Your task to perform on an android device: Is it going to rain tomorrow? Image 0: 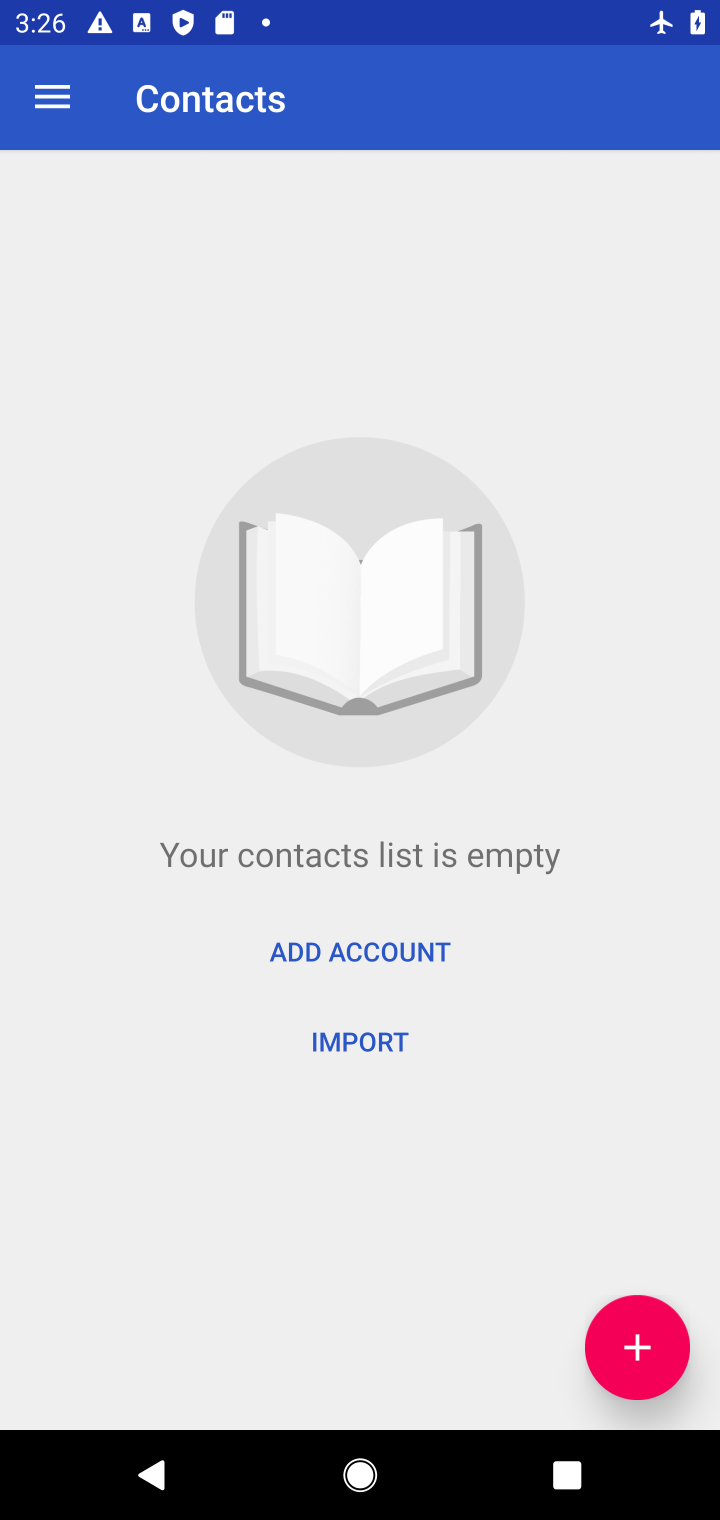
Step 0: press home button
Your task to perform on an android device: Is it going to rain tomorrow? Image 1: 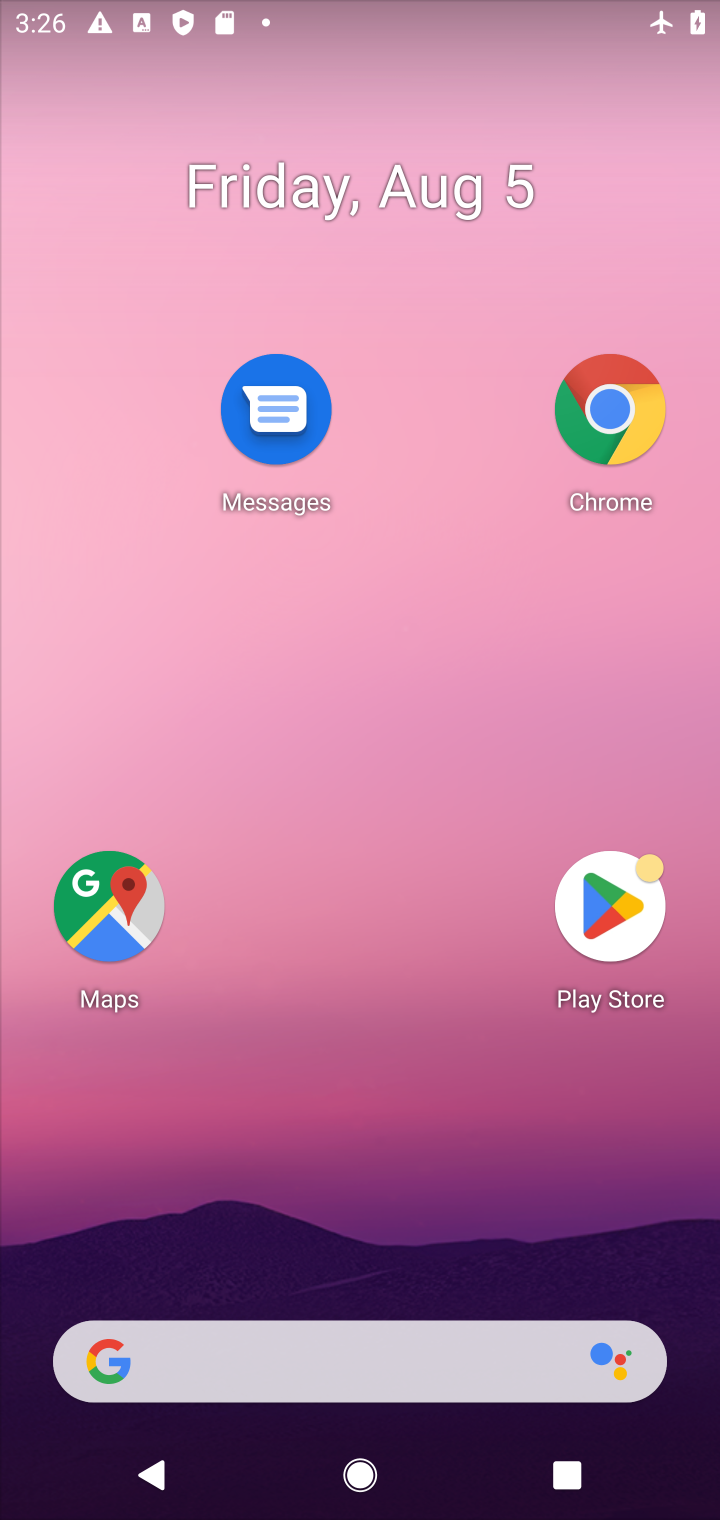
Step 1: drag from (328, 1041) to (378, 329)
Your task to perform on an android device: Is it going to rain tomorrow? Image 2: 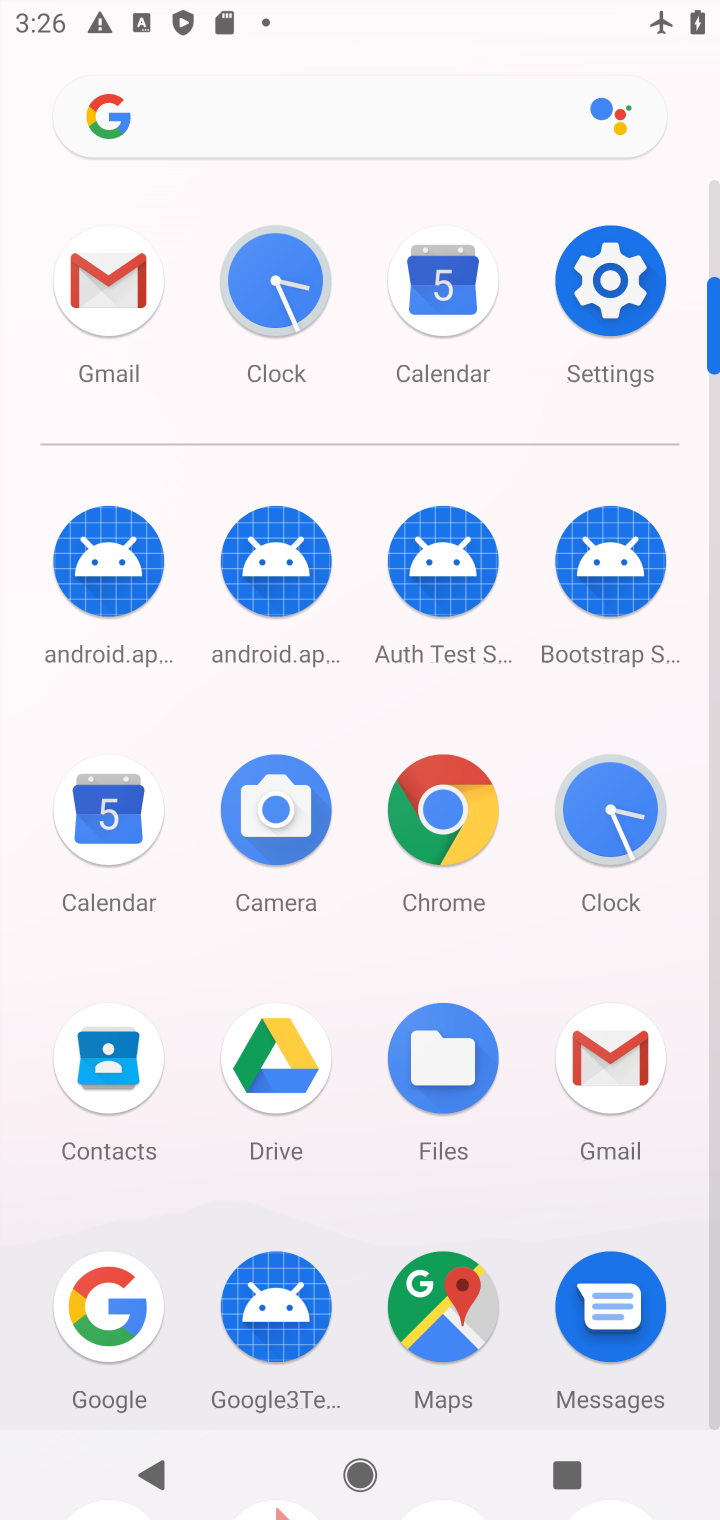
Step 2: click (101, 1289)
Your task to perform on an android device: Is it going to rain tomorrow? Image 3: 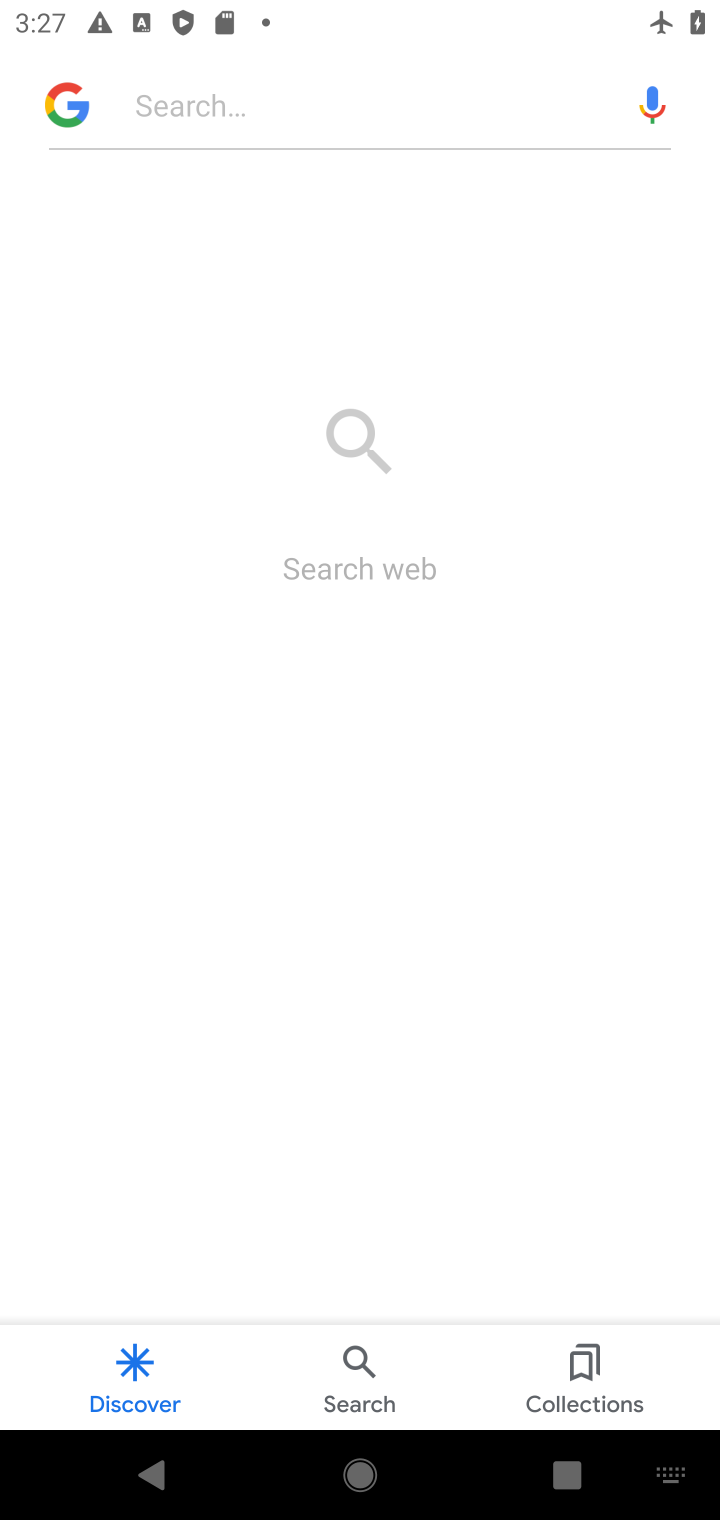
Step 3: click (224, 107)
Your task to perform on an android device: Is it going to rain tomorrow? Image 4: 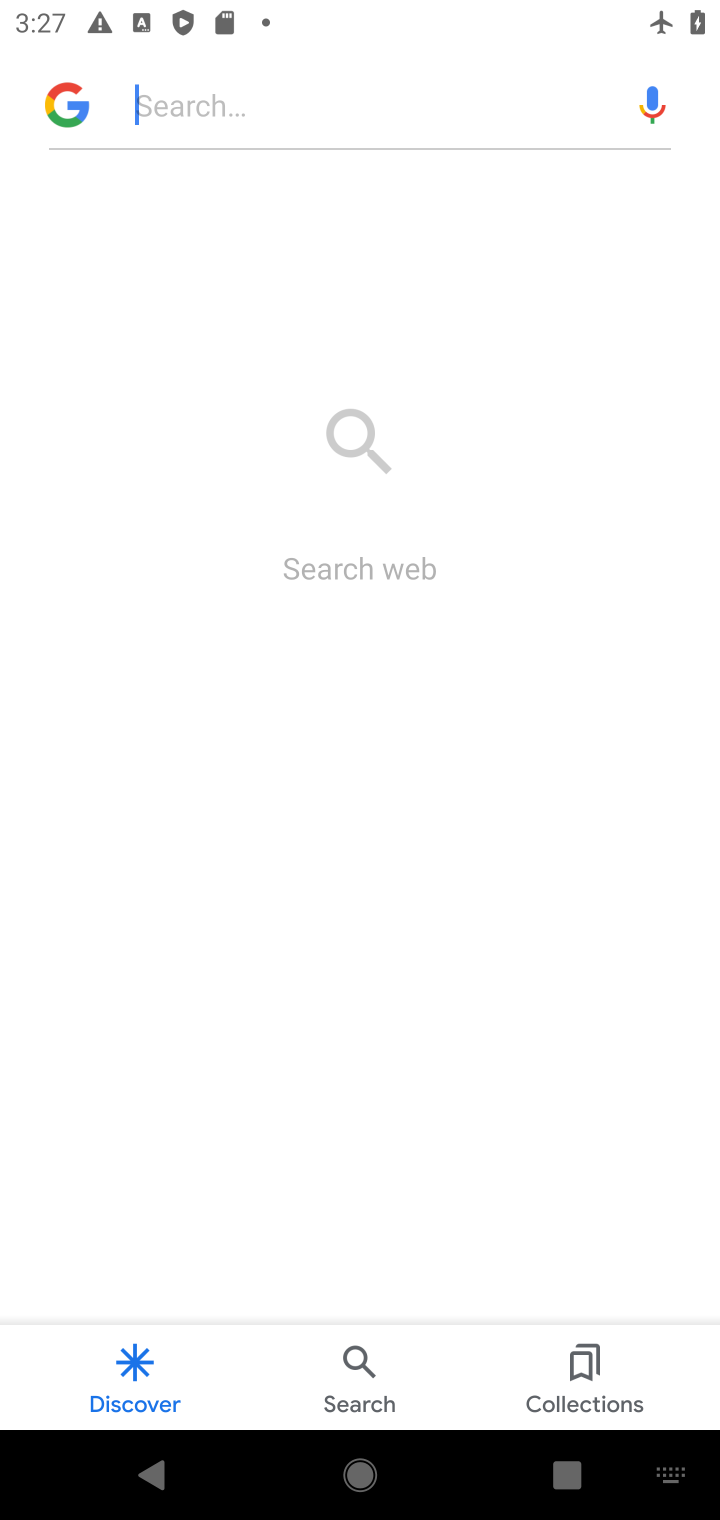
Step 4: type "weather"
Your task to perform on an android device: Is it going to rain tomorrow? Image 5: 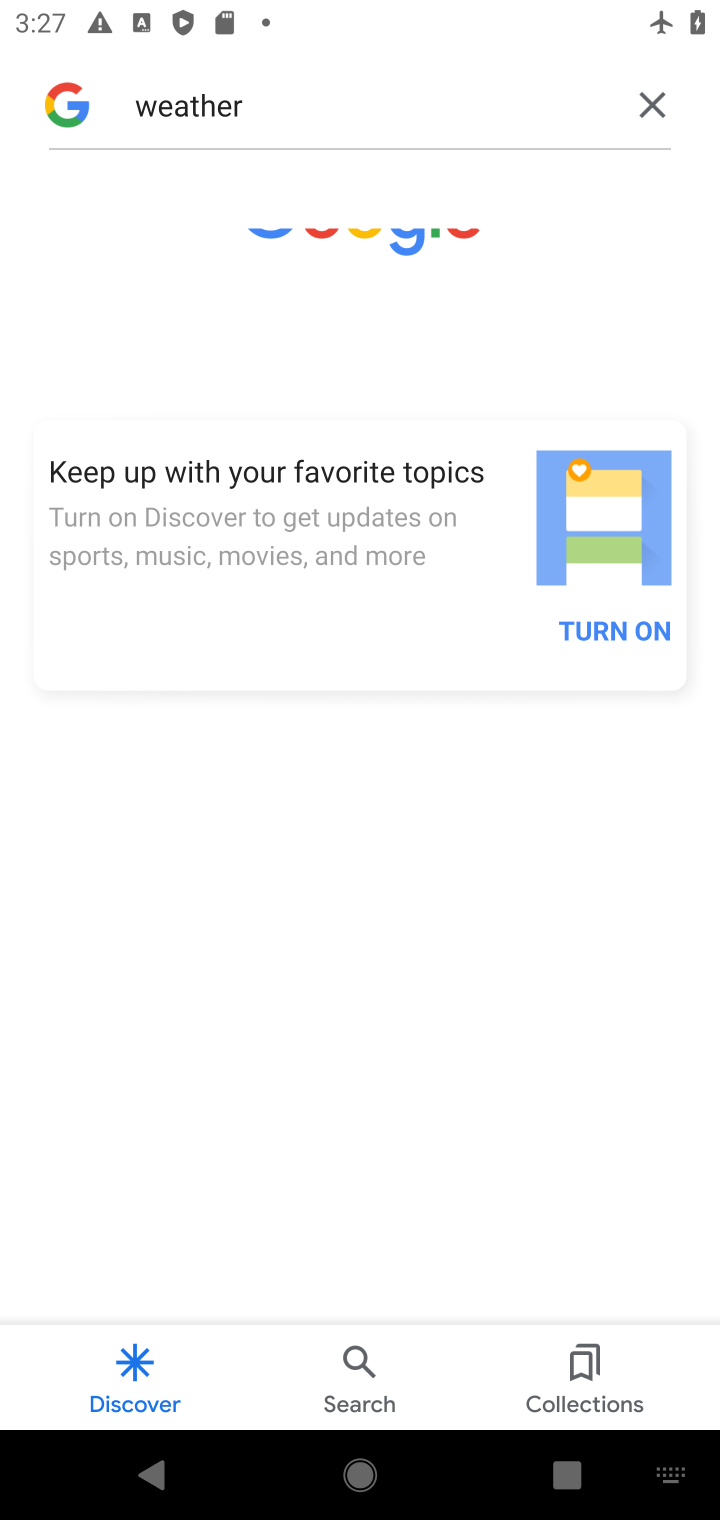
Step 5: type ""
Your task to perform on an android device: Is it going to rain tomorrow? Image 6: 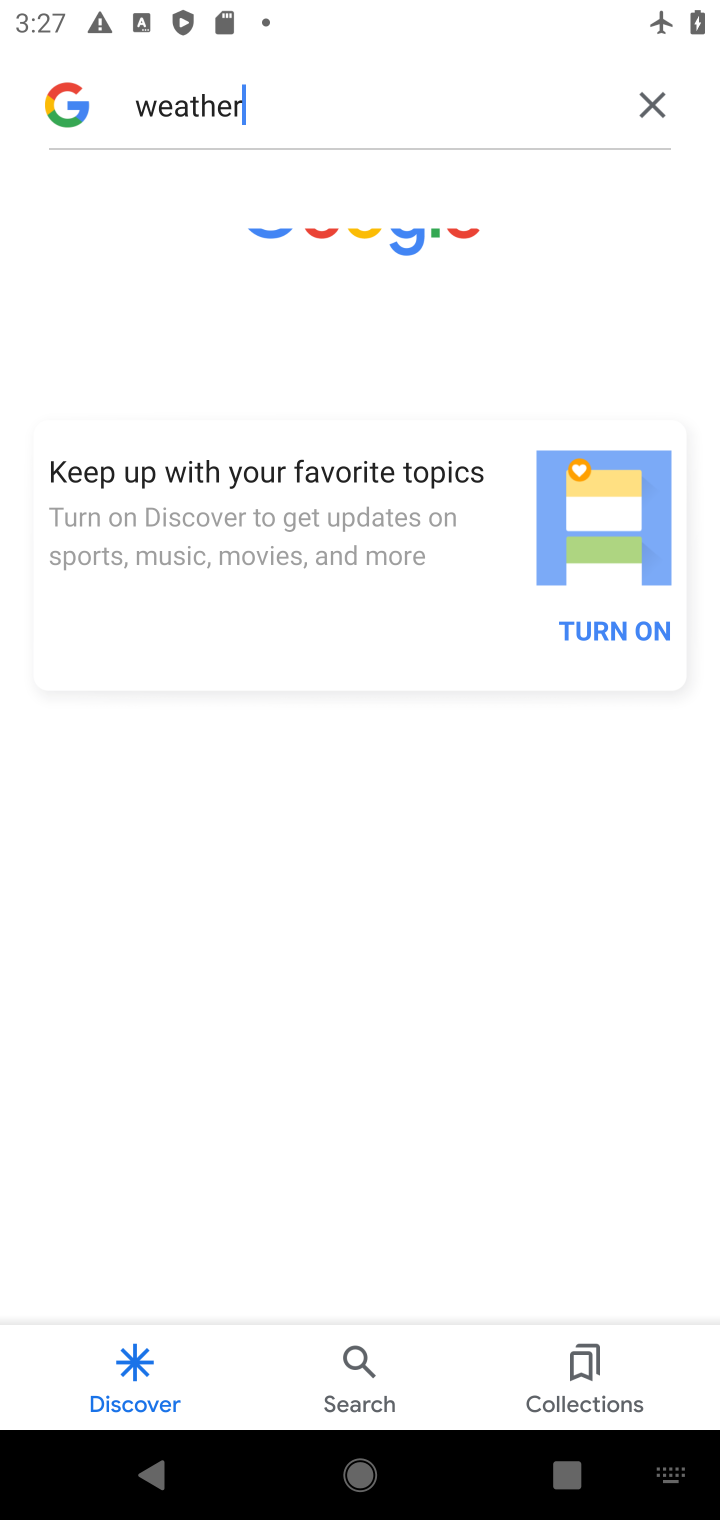
Step 6: task complete